Your task to perform on an android device: install app "Flipkart Online Shopping App" Image 0: 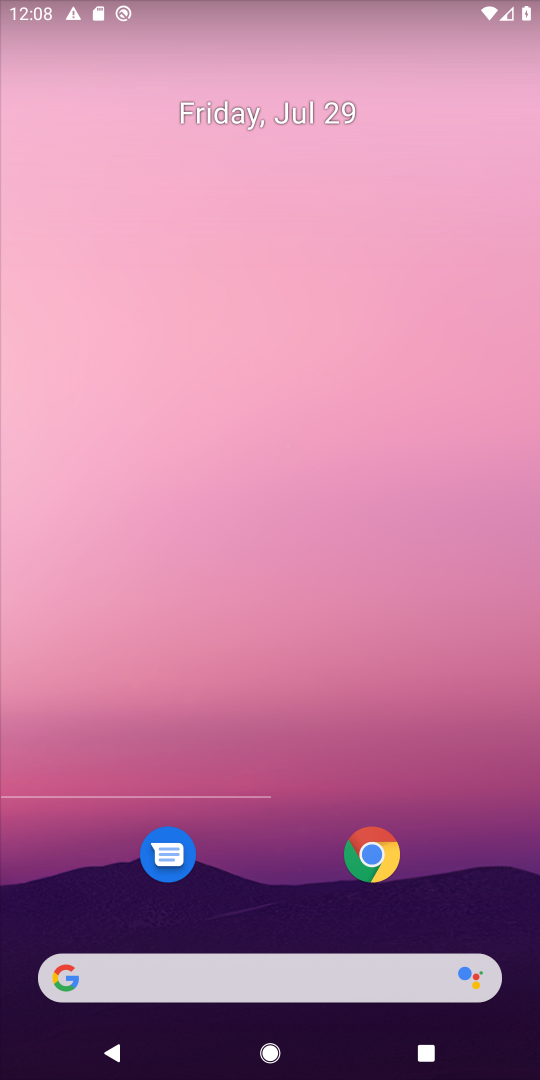
Step 0: press home button
Your task to perform on an android device: install app "Flipkart Online Shopping App" Image 1: 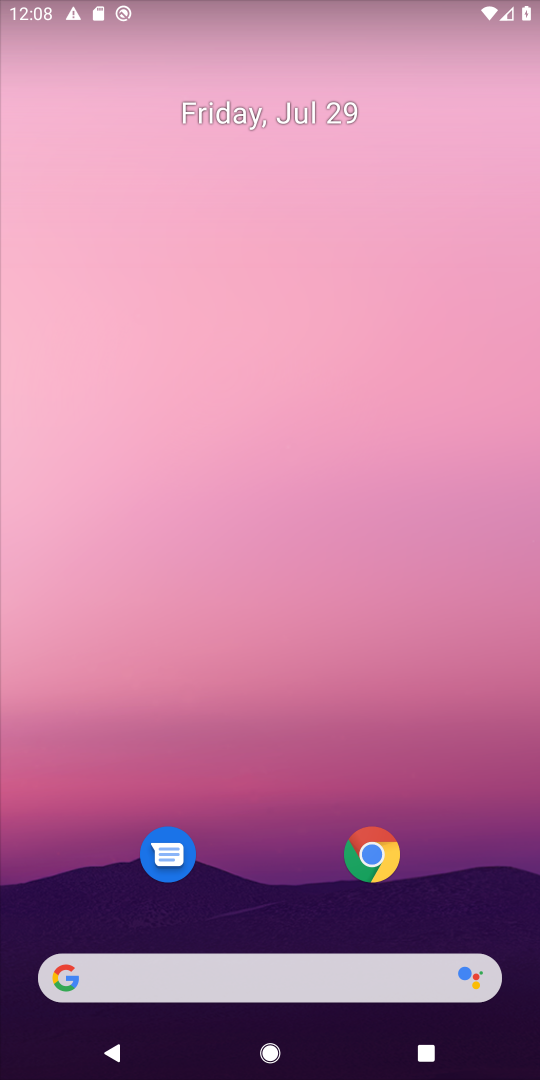
Step 1: drag from (256, 908) to (430, 8)
Your task to perform on an android device: install app "Flipkart Online Shopping App" Image 2: 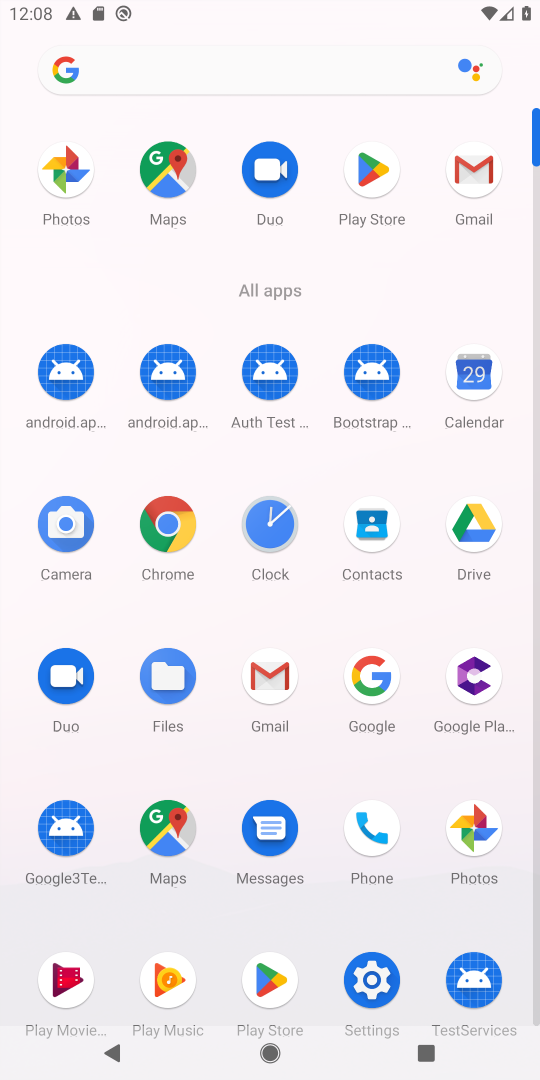
Step 2: click (379, 176)
Your task to perform on an android device: install app "Flipkart Online Shopping App" Image 3: 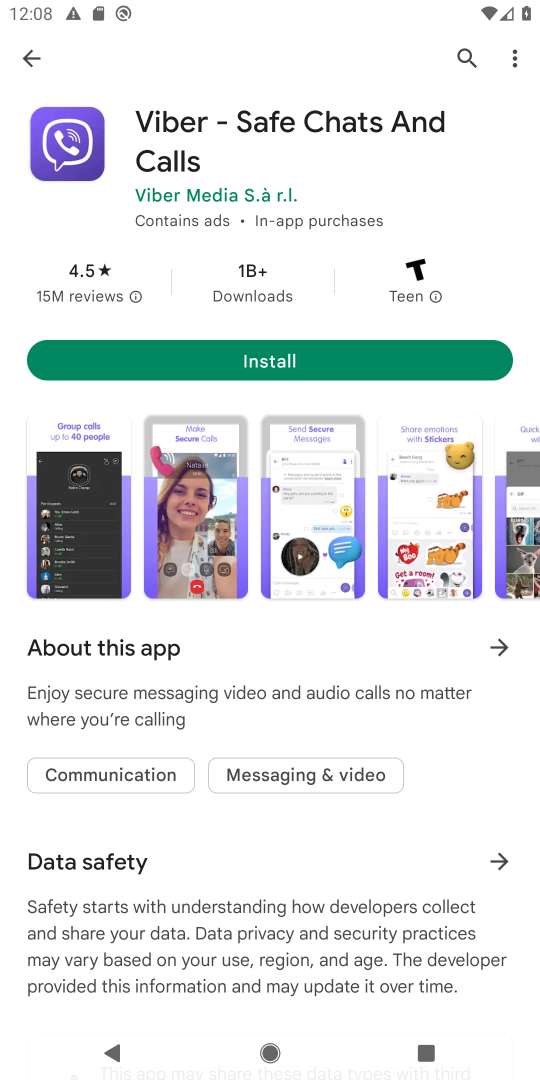
Step 3: click (456, 56)
Your task to perform on an android device: install app "Flipkart Online Shopping App" Image 4: 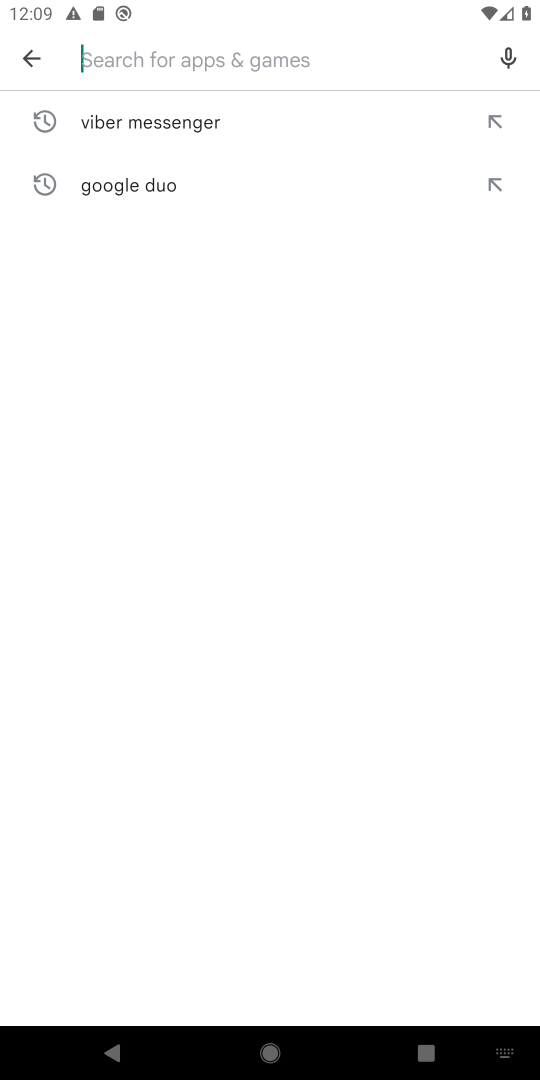
Step 4: type "flipkart online shopping App"
Your task to perform on an android device: install app "Flipkart Online Shopping App" Image 5: 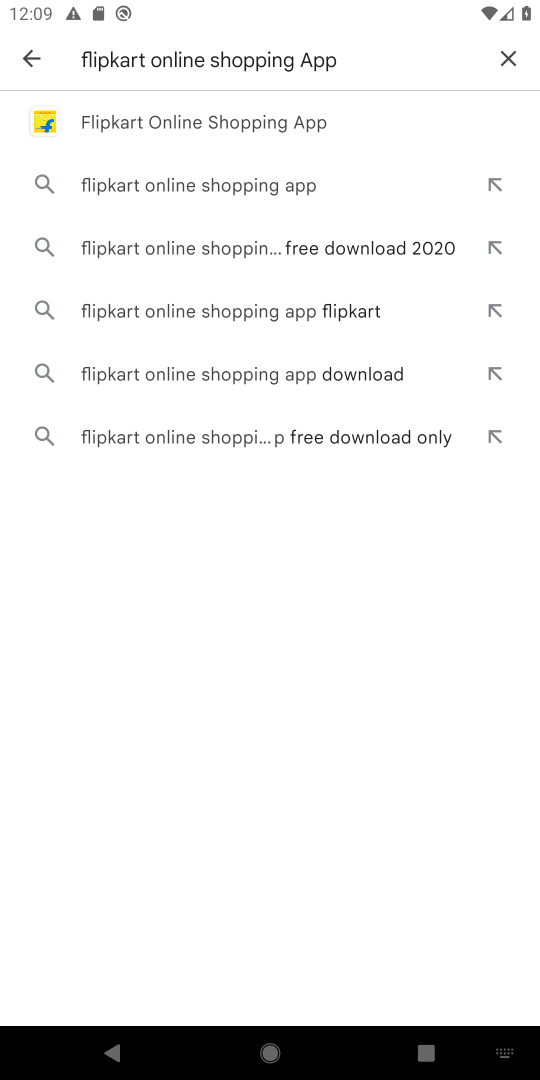
Step 5: click (344, 122)
Your task to perform on an android device: install app "Flipkart Online Shopping App" Image 6: 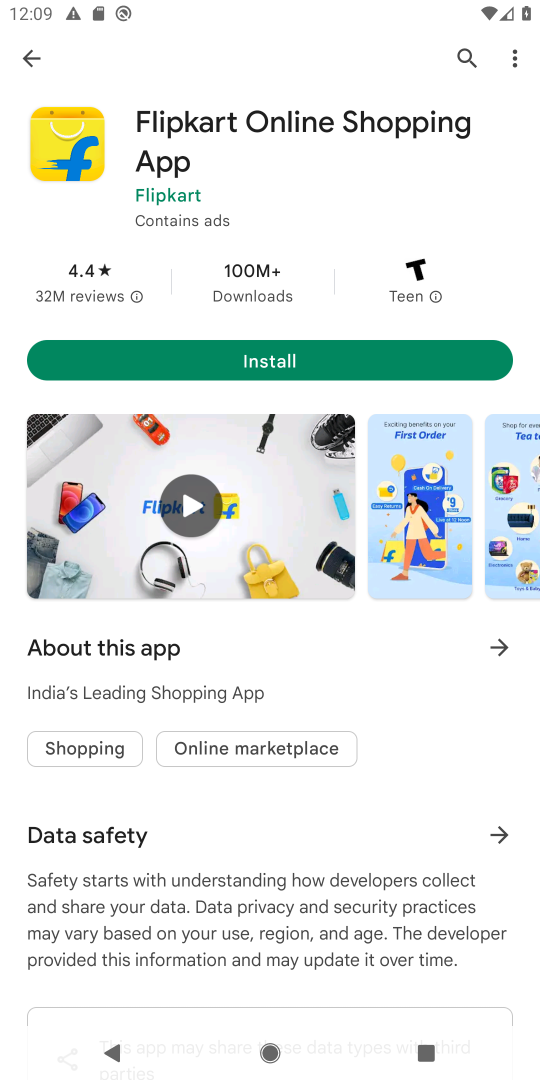
Step 6: click (231, 349)
Your task to perform on an android device: install app "Flipkart Online Shopping App" Image 7: 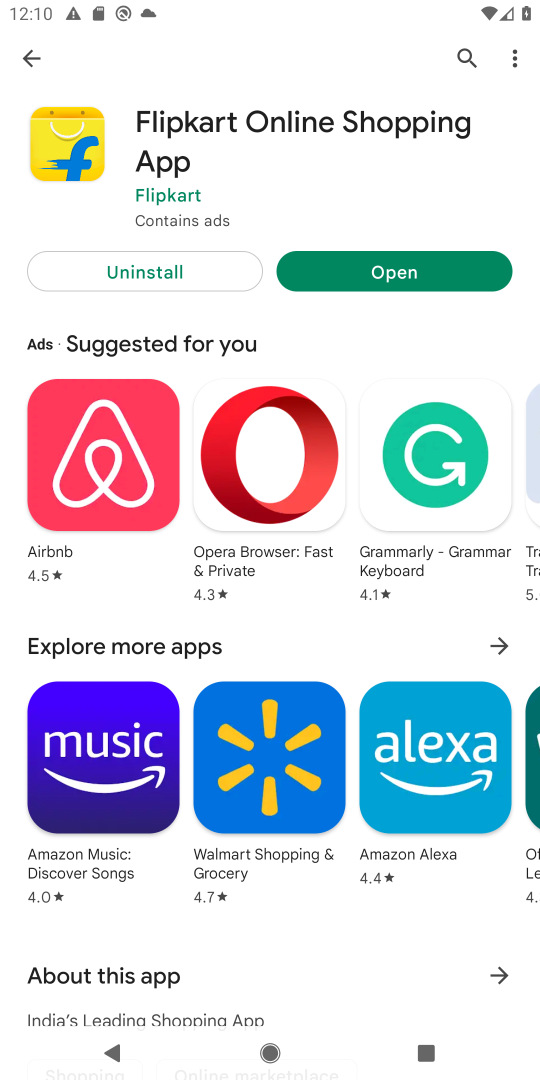
Step 7: task complete